Your task to perform on an android device: Do I have any events today? Image 0: 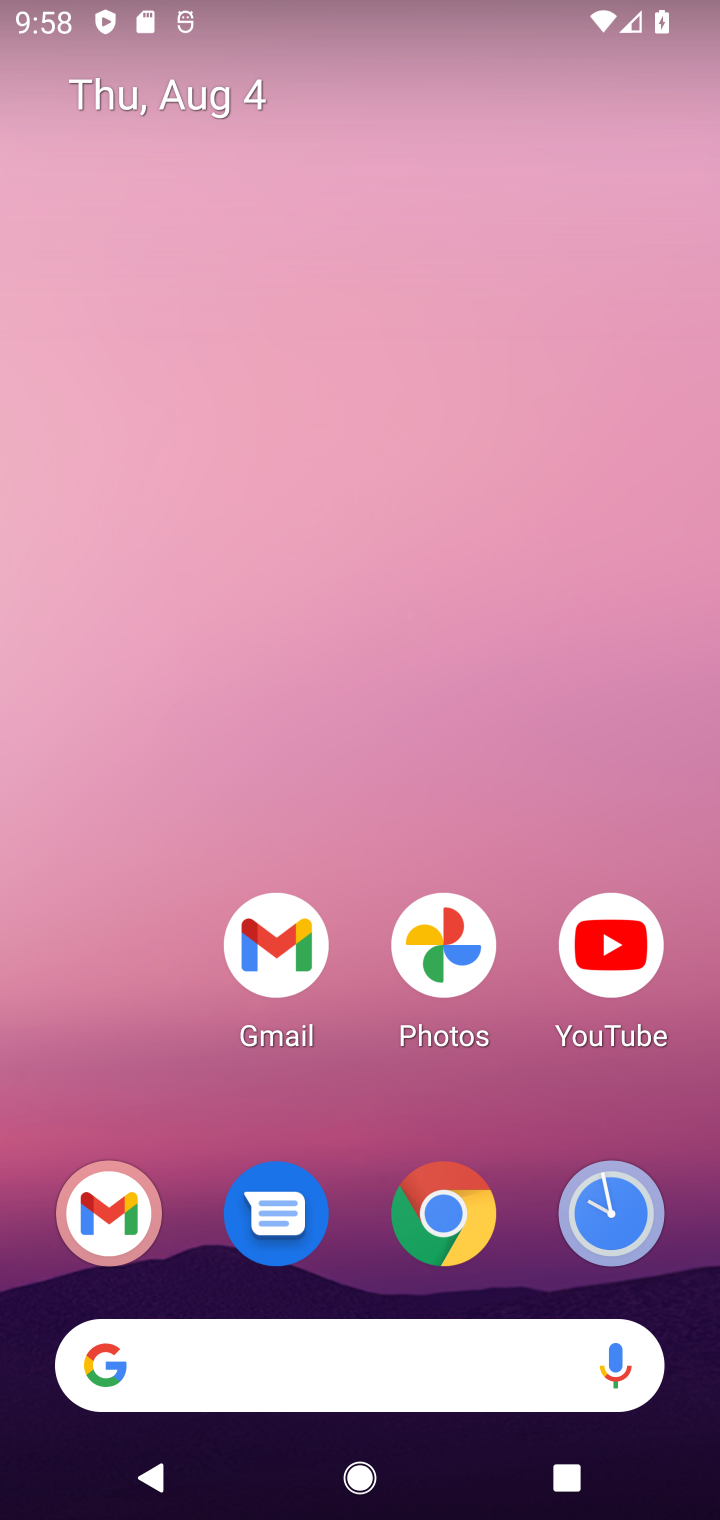
Step 0: drag from (298, 635) to (340, 72)
Your task to perform on an android device: Do I have any events today? Image 1: 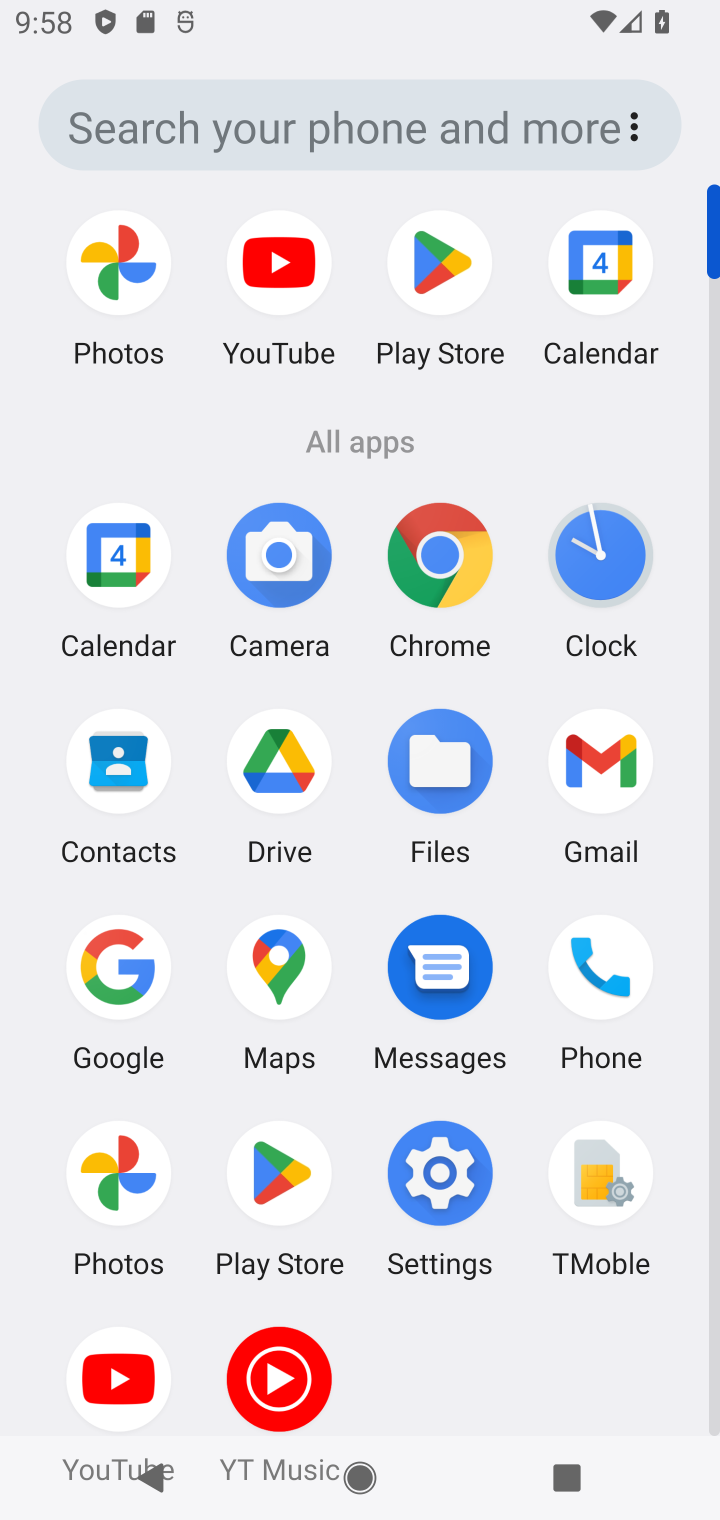
Step 1: click (109, 580)
Your task to perform on an android device: Do I have any events today? Image 2: 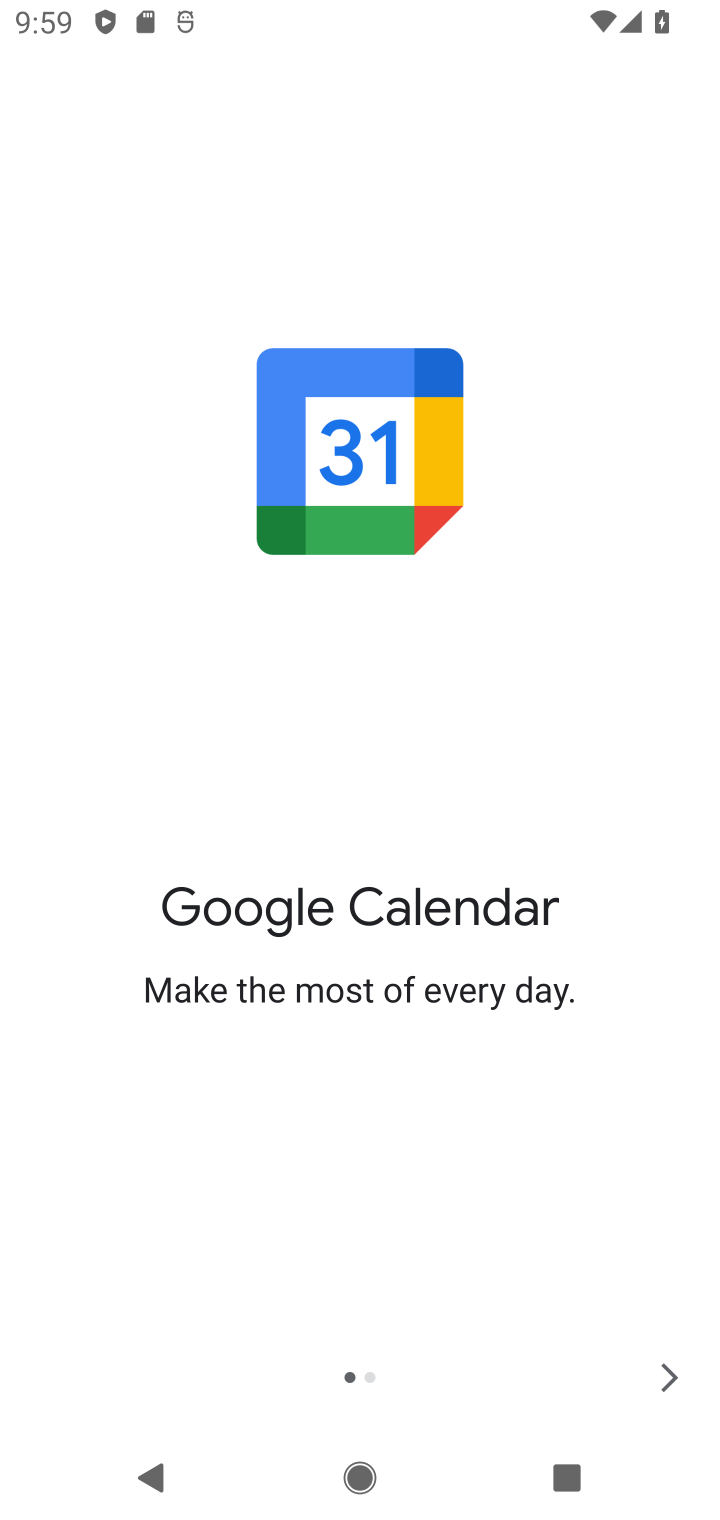
Step 2: click (659, 1377)
Your task to perform on an android device: Do I have any events today? Image 3: 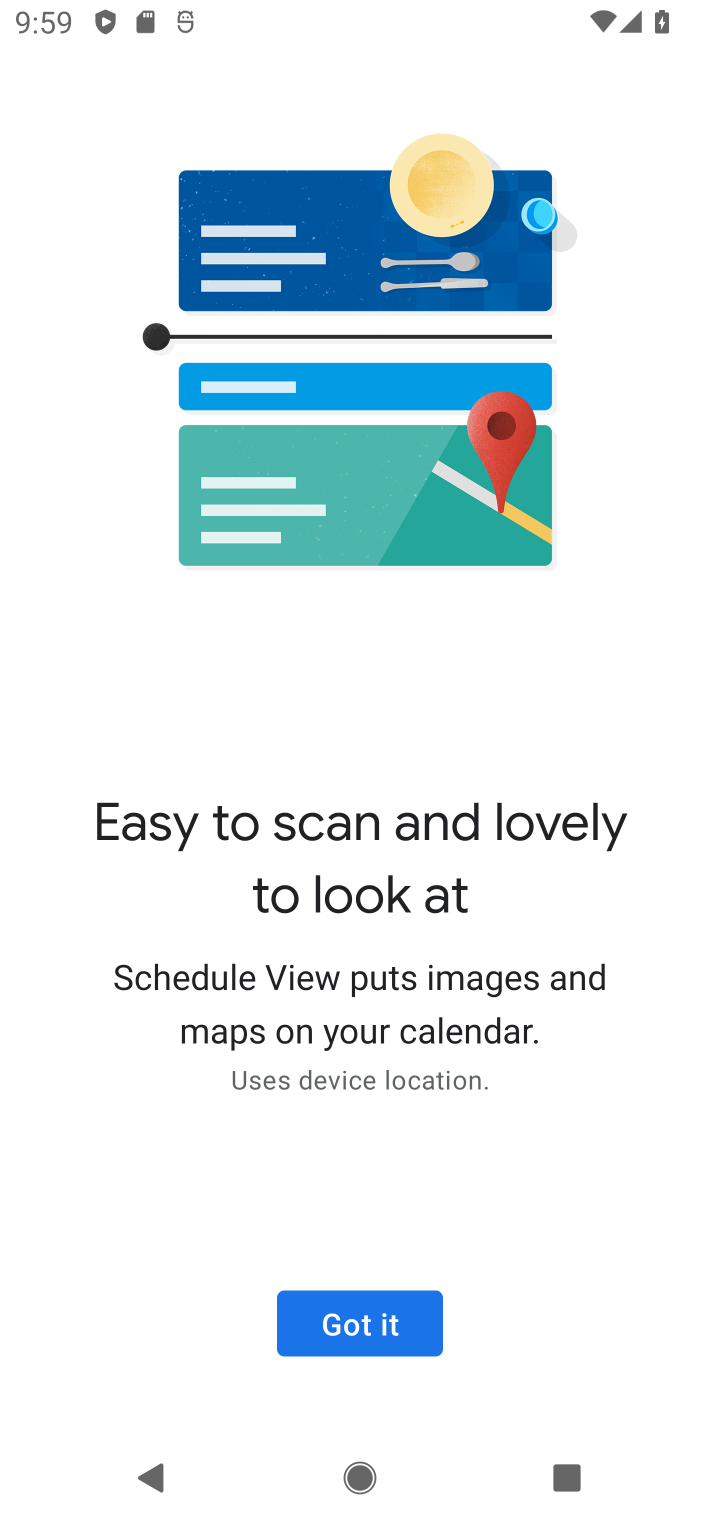
Step 3: click (659, 1377)
Your task to perform on an android device: Do I have any events today? Image 4: 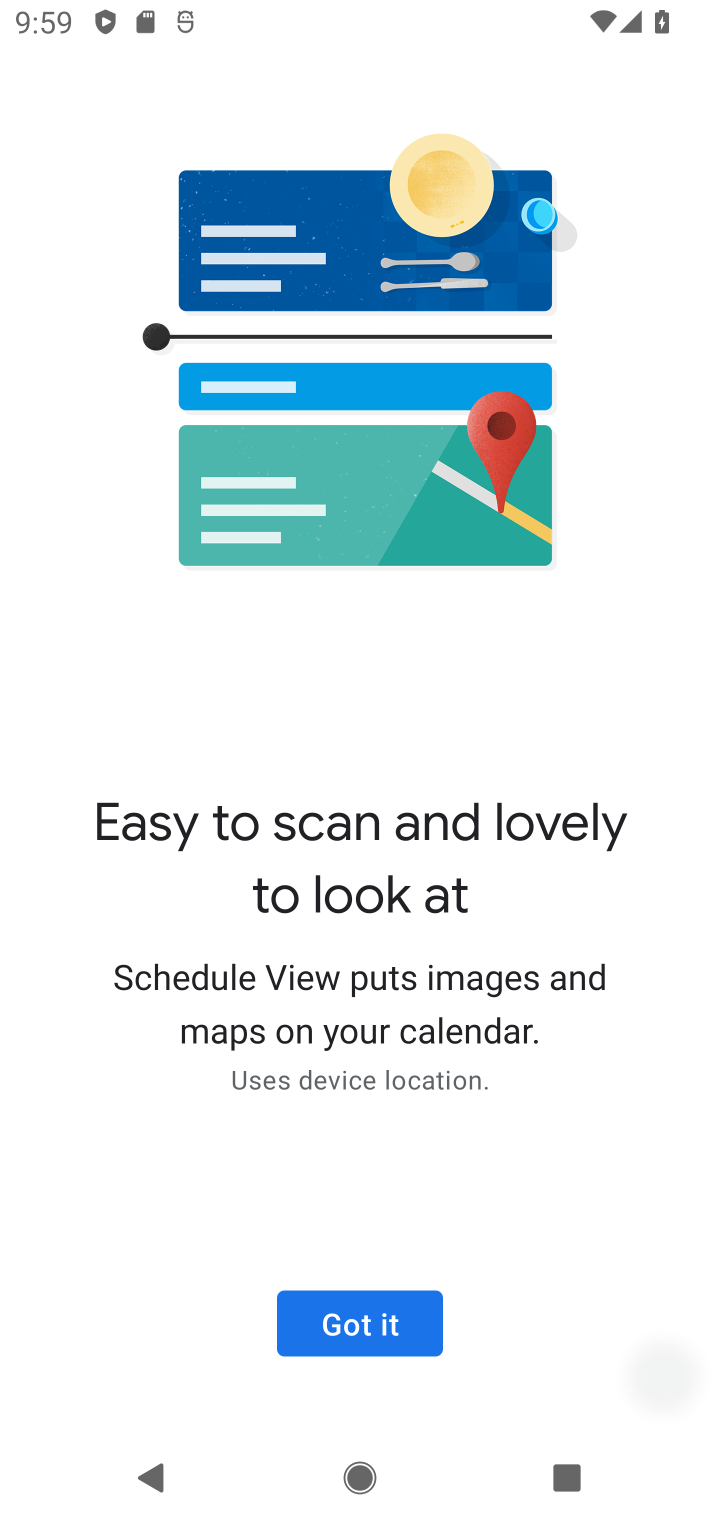
Step 4: click (384, 1320)
Your task to perform on an android device: Do I have any events today? Image 5: 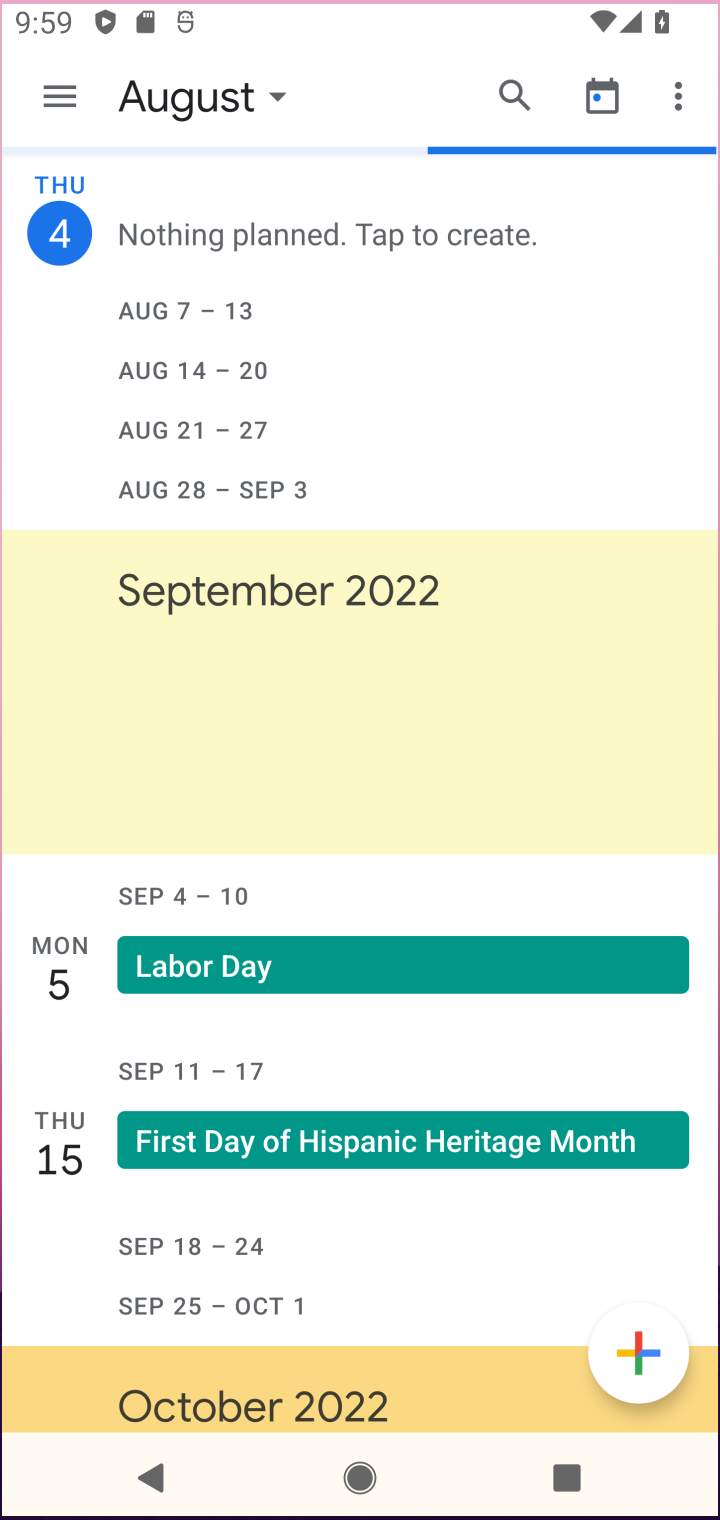
Step 5: click (382, 1316)
Your task to perform on an android device: Do I have any events today? Image 6: 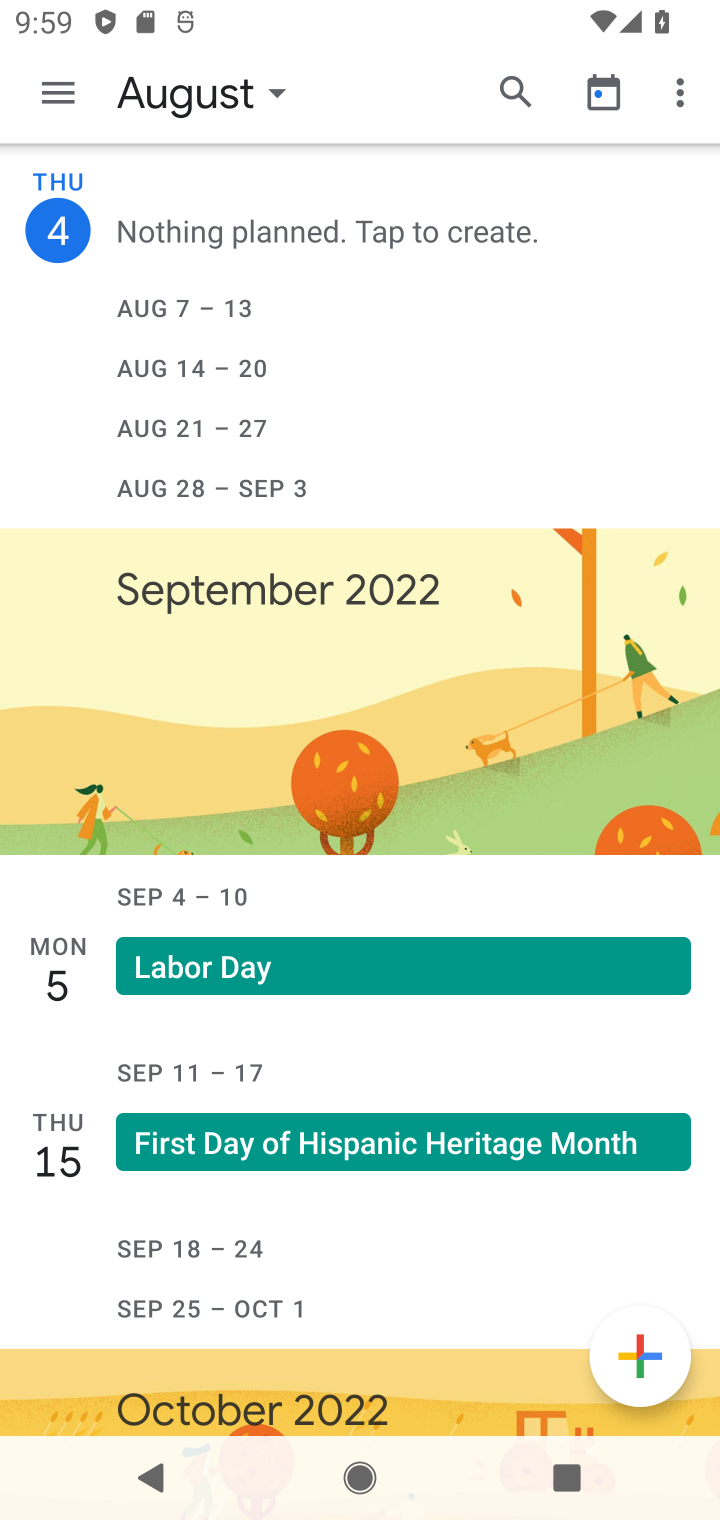
Step 6: click (45, 87)
Your task to perform on an android device: Do I have any events today? Image 7: 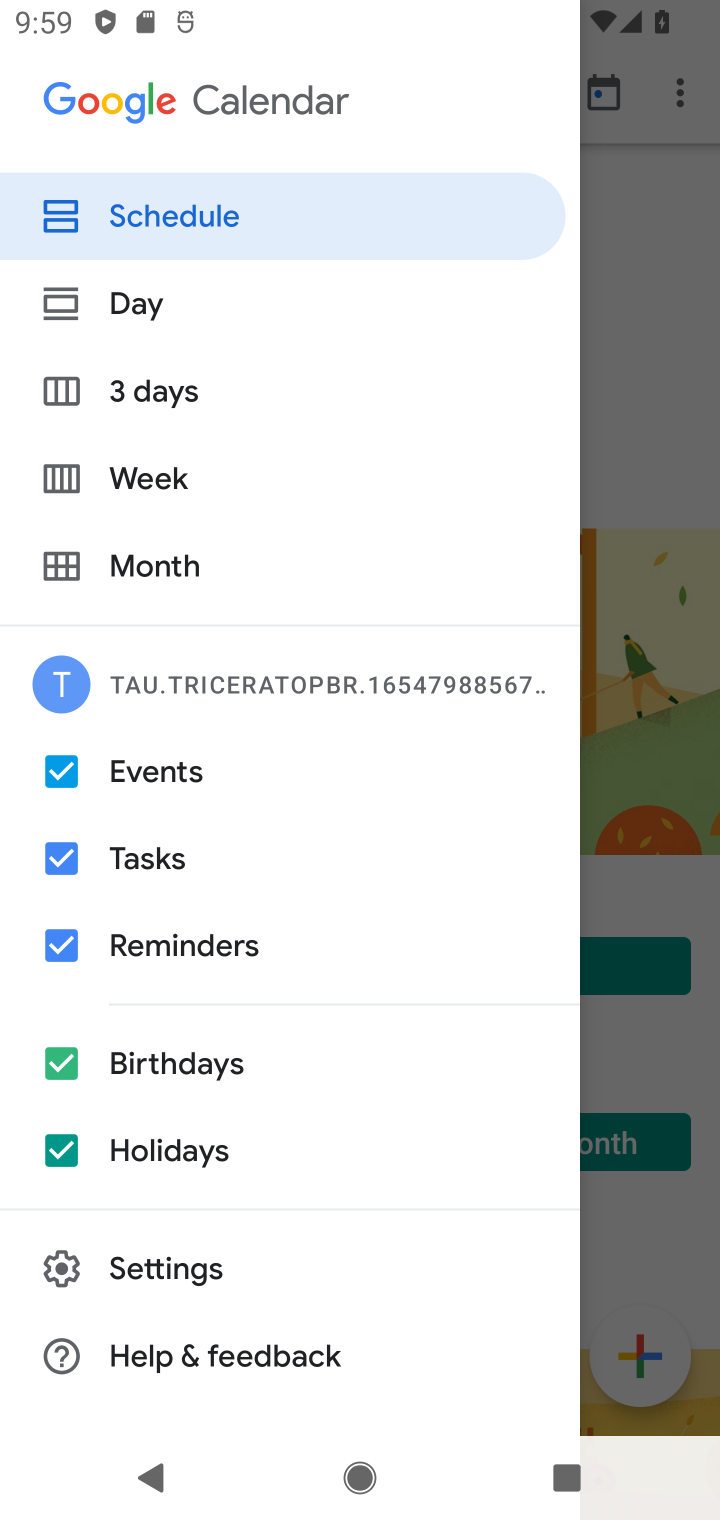
Step 7: click (141, 866)
Your task to perform on an android device: Do I have any events today? Image 8: 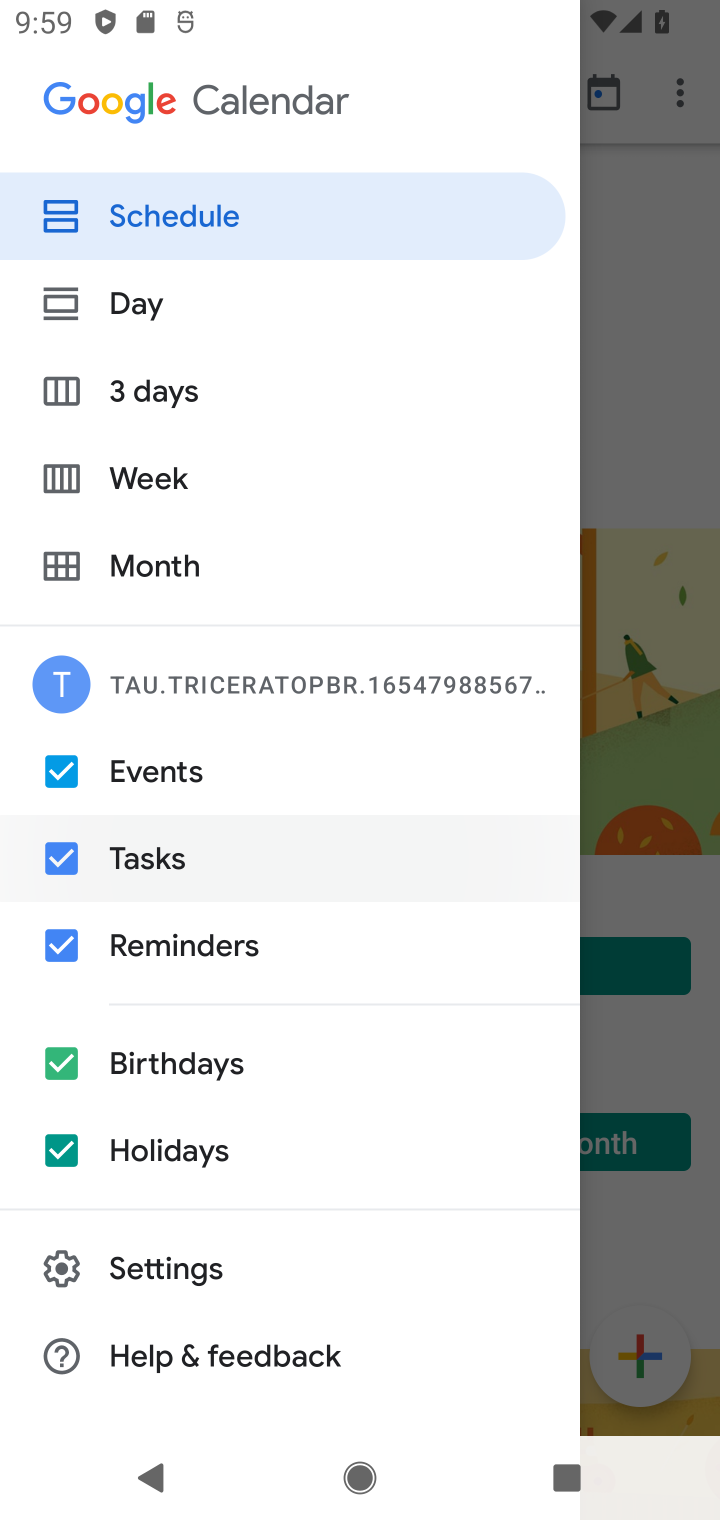
Step 8: click (123, 945)
Your task to perform on an android device: Do I have any events today? Image 9: 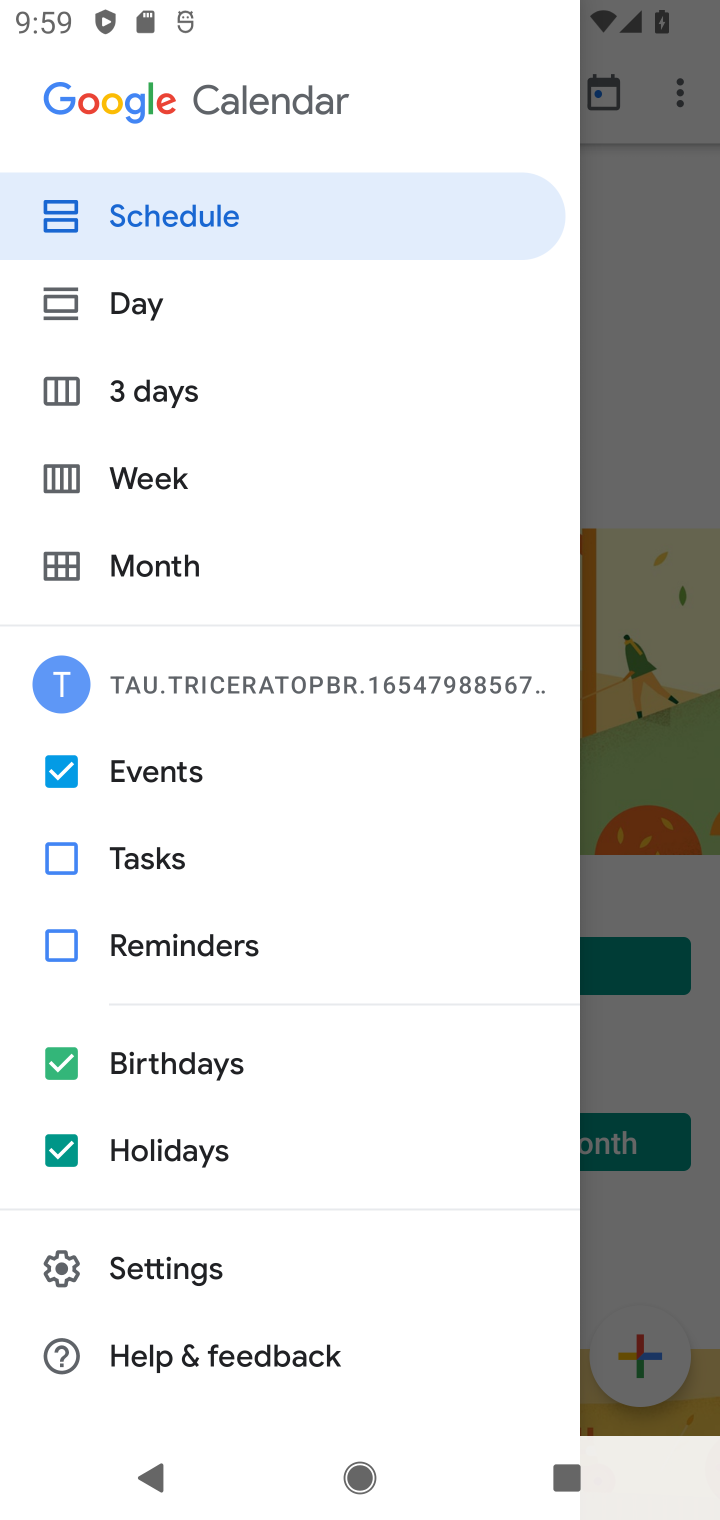
Step 9: click (106, 1049)
Your task to perform on an android device: Do I have any events today? Image 10: 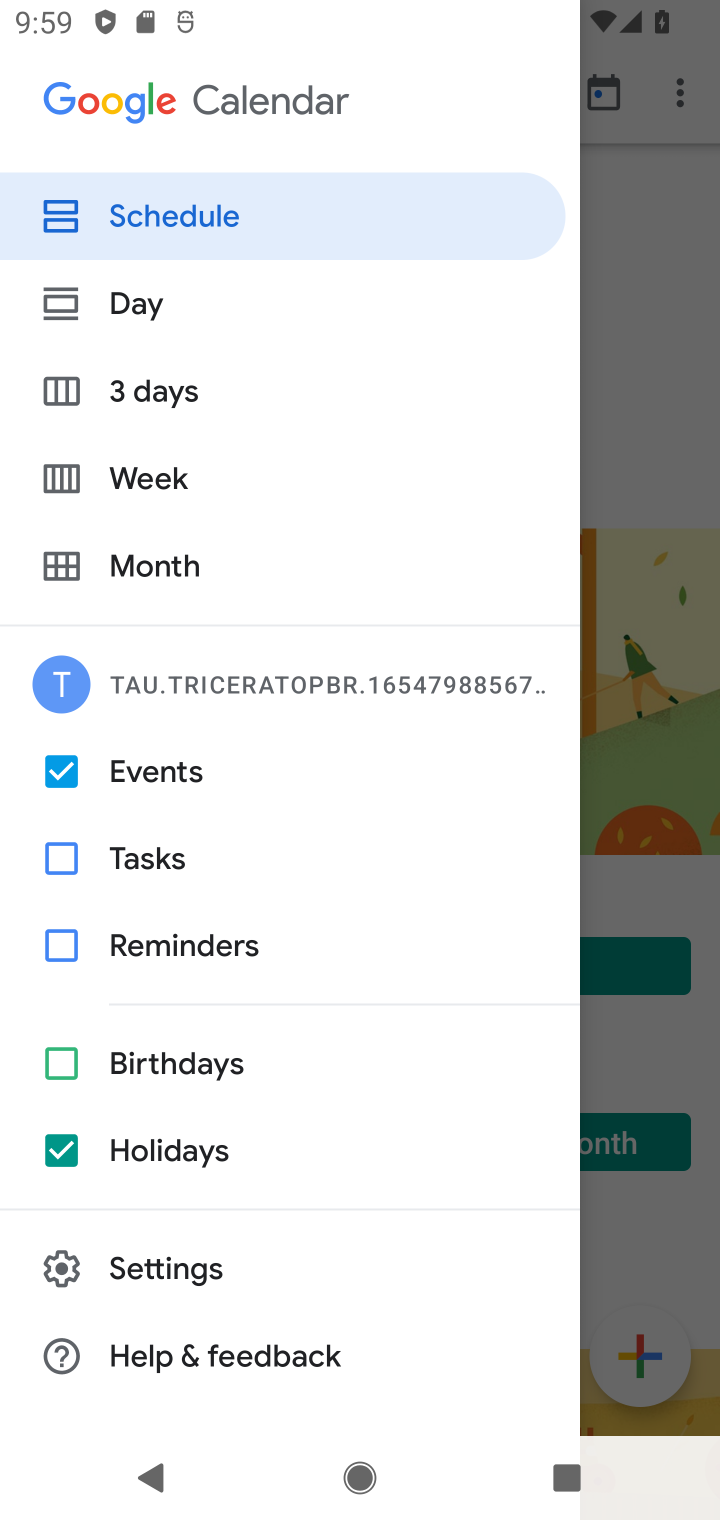
Step 10: click (89, 1152)
Your task to perform on an android device: Do I have any events today? Image 11: 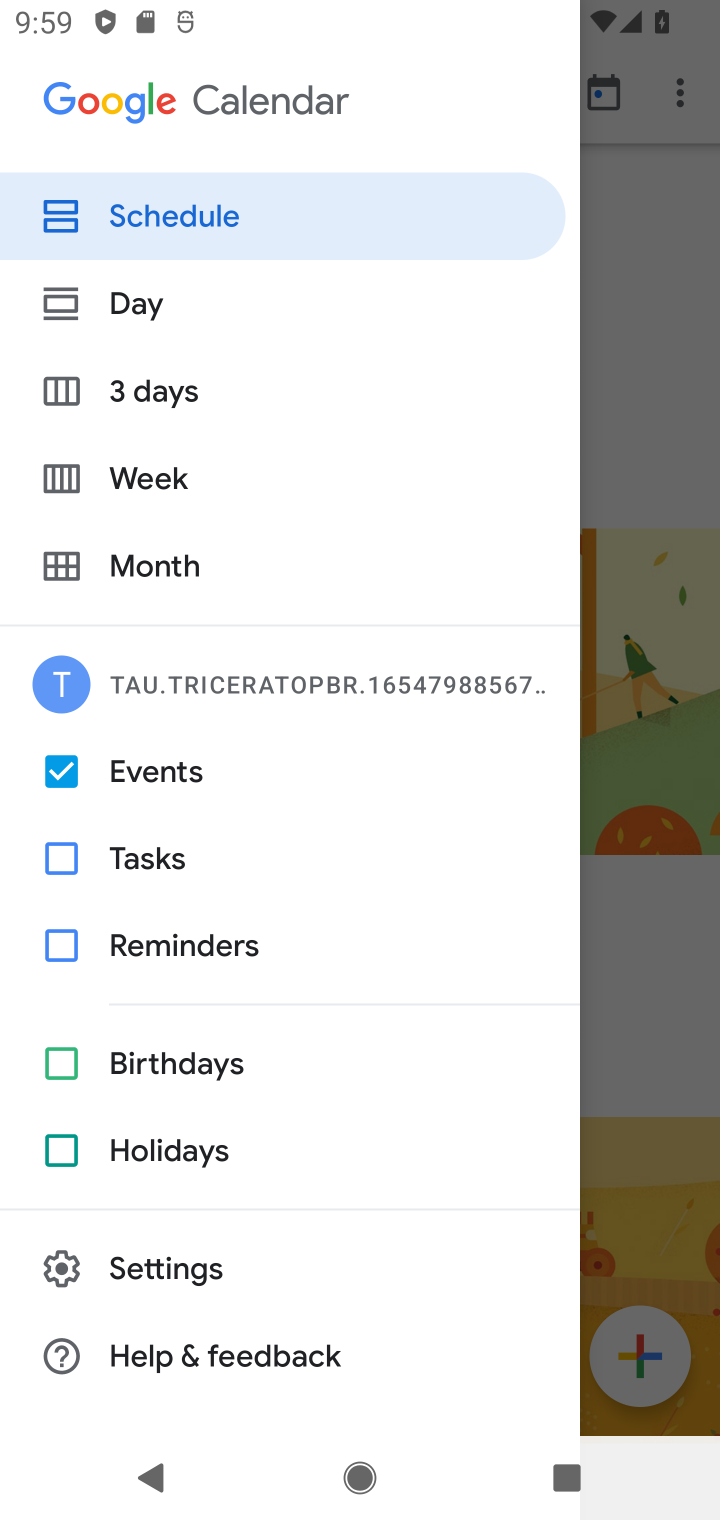
Step 11: click (149, 309)
Your task to perform on an android device: Do I have any events today? Image 12: 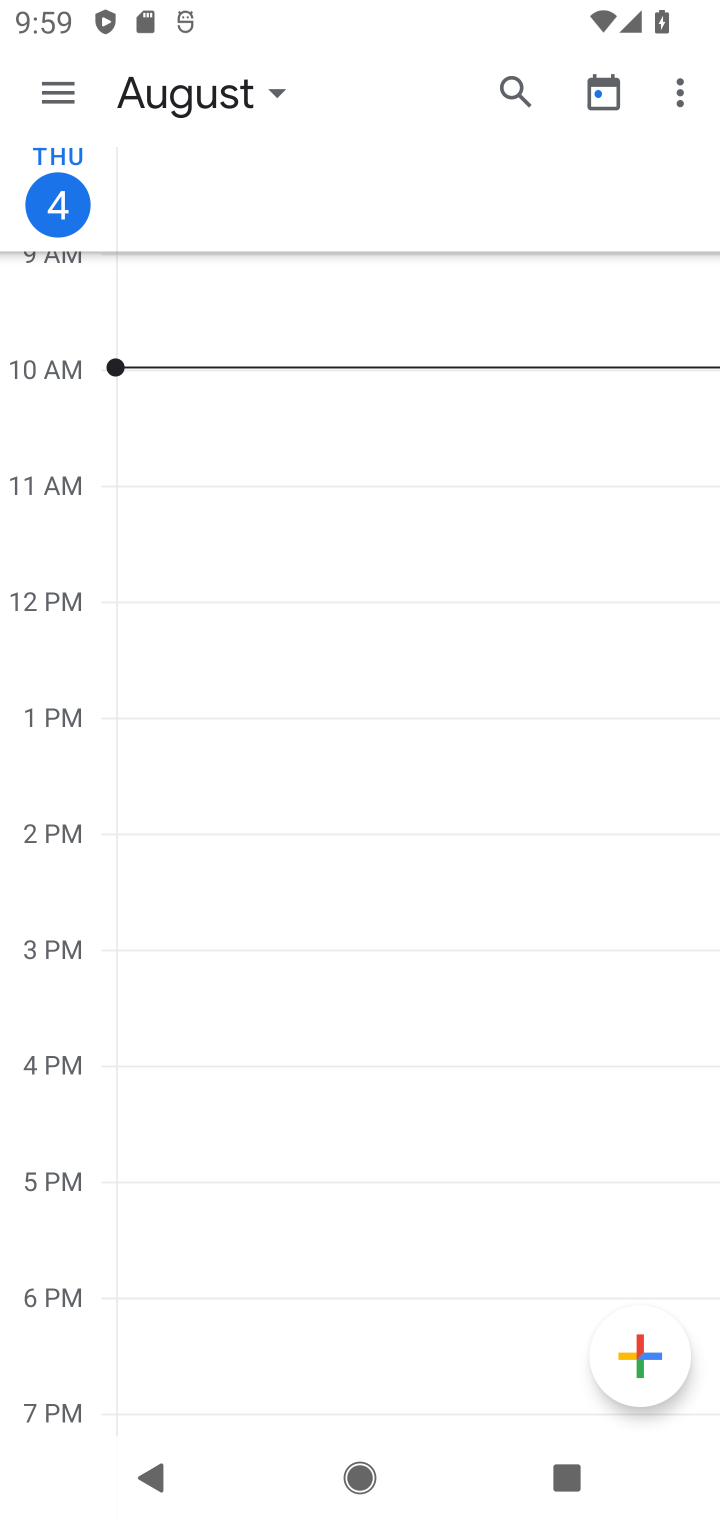
Step 12: task complete